Your task to perform on an android device: delete browsing data in the chrome app Image 0: 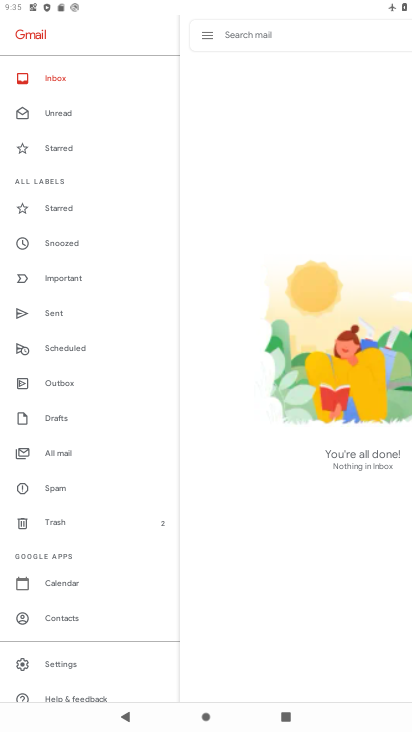
Step 0: press home button
Your task to perform on an android device: delete browsing data in the chrome app Image 1: 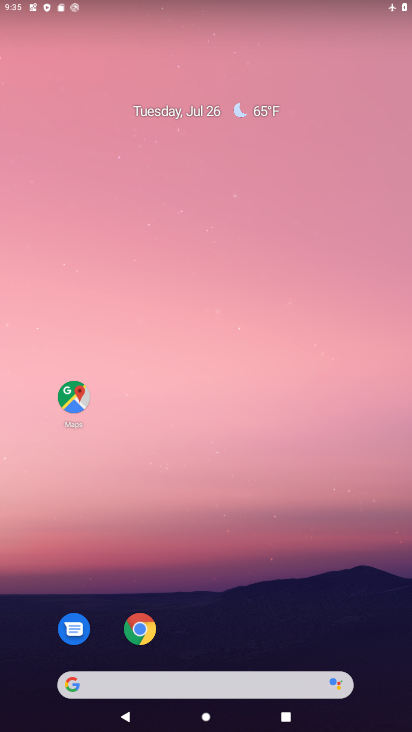
Step 1: drag from (297, 583) to (180, 30)
Your task to perform on an android device: delete browsing data in the chrome app Image 2: 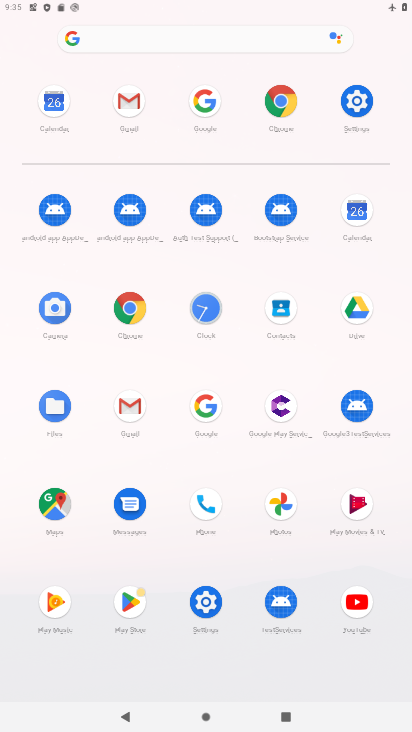
Step 2: click (131, 305)
Your task to perform on an android device: delete browsing data in the chrome app Image 3: 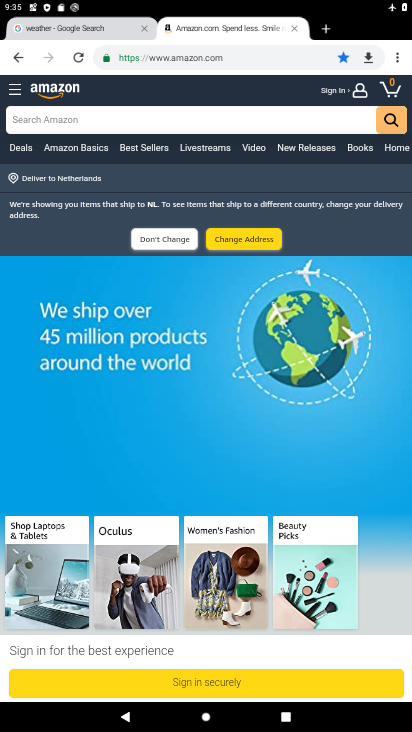
Step 3: drag from (403, 54) to (280, 170)
Your task to perform on an android device: delete browsing data in the chrome app Image 4: 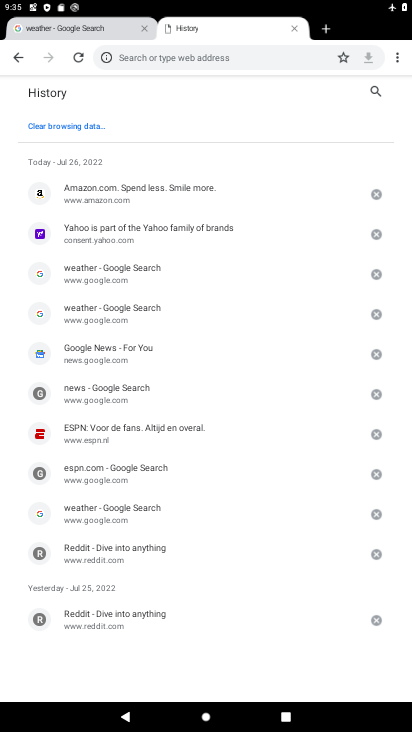
Step 4: click (78, 124)
Your task to perform on an android device: delete browsing data in the chrome app Image 5: 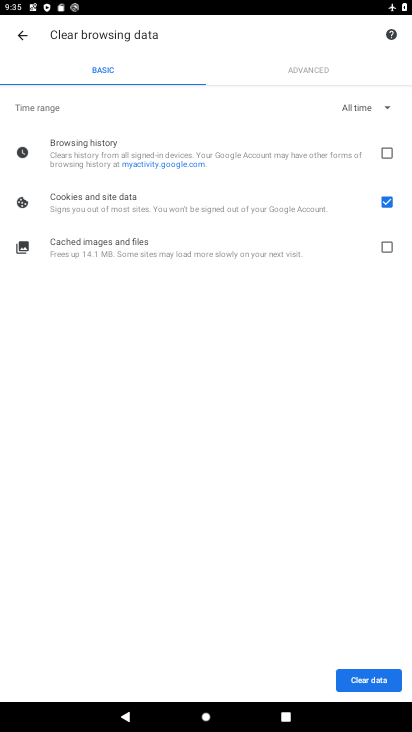
Step 5: click (387, 153)
Your task to perform on an android device: delete browsing data in the chrome app Image 6: 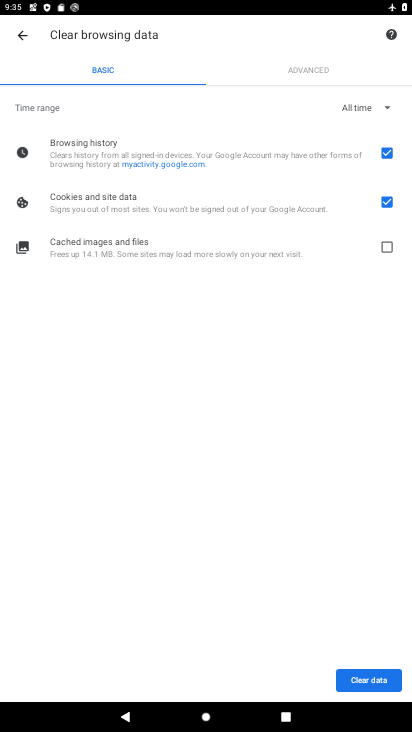
Step 6: click (390, 242)
Your task to perform on an android device: delete browsing data in the chrome app Image 7: 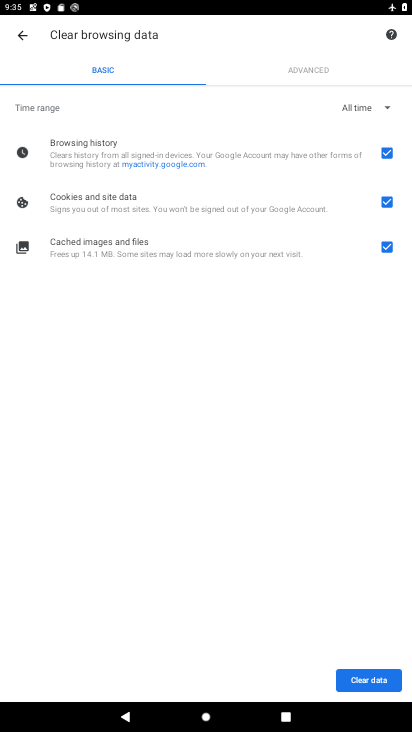
Step 7: click (381, 678)
Your task to perform on an android device: delete browsing data in the chrome app Image 8: 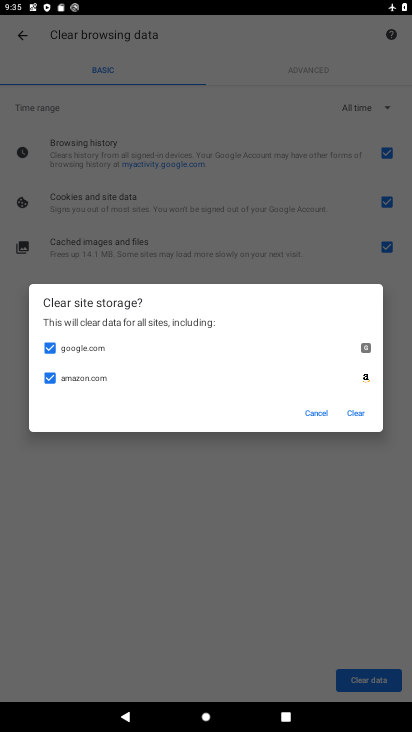
Step 8: click (364, 412)
Your task to perform on an android device: delete browsing data in the chrome app Image 9: 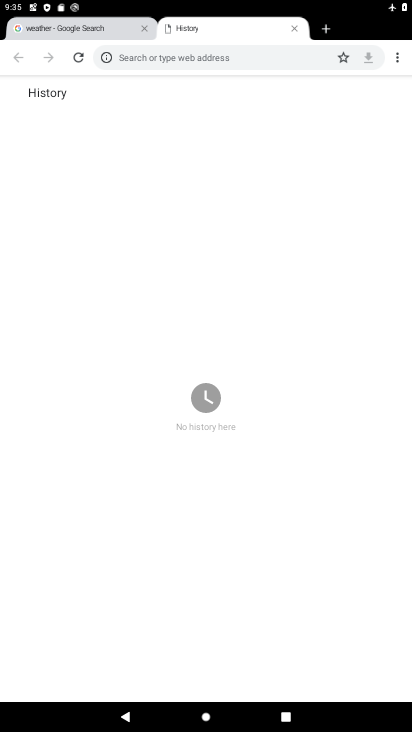
Step 9: task complete